Your task to perform on an android device: Open ESPN.com Image 0: 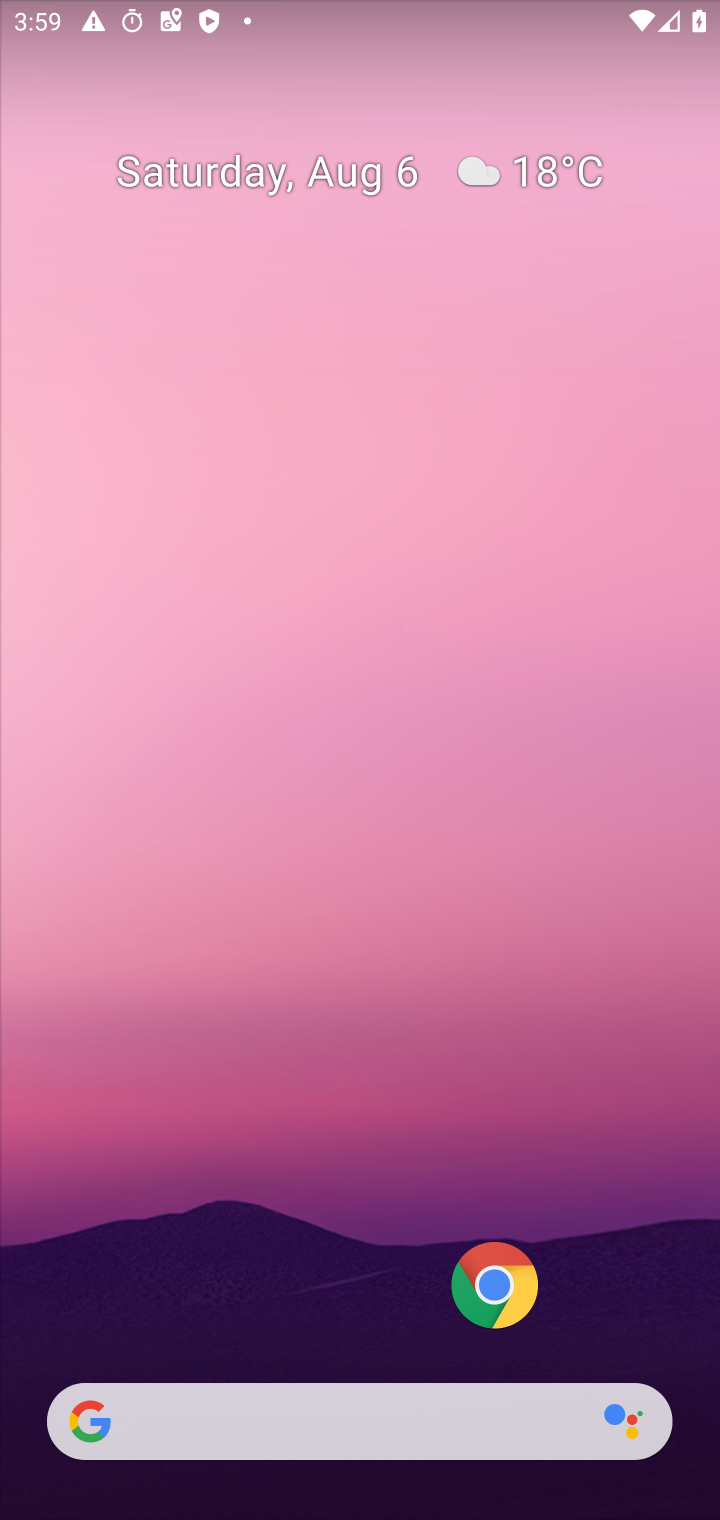
Step 0: press home button
Your task to perform on an android device: Open ESPN.com Image 1: 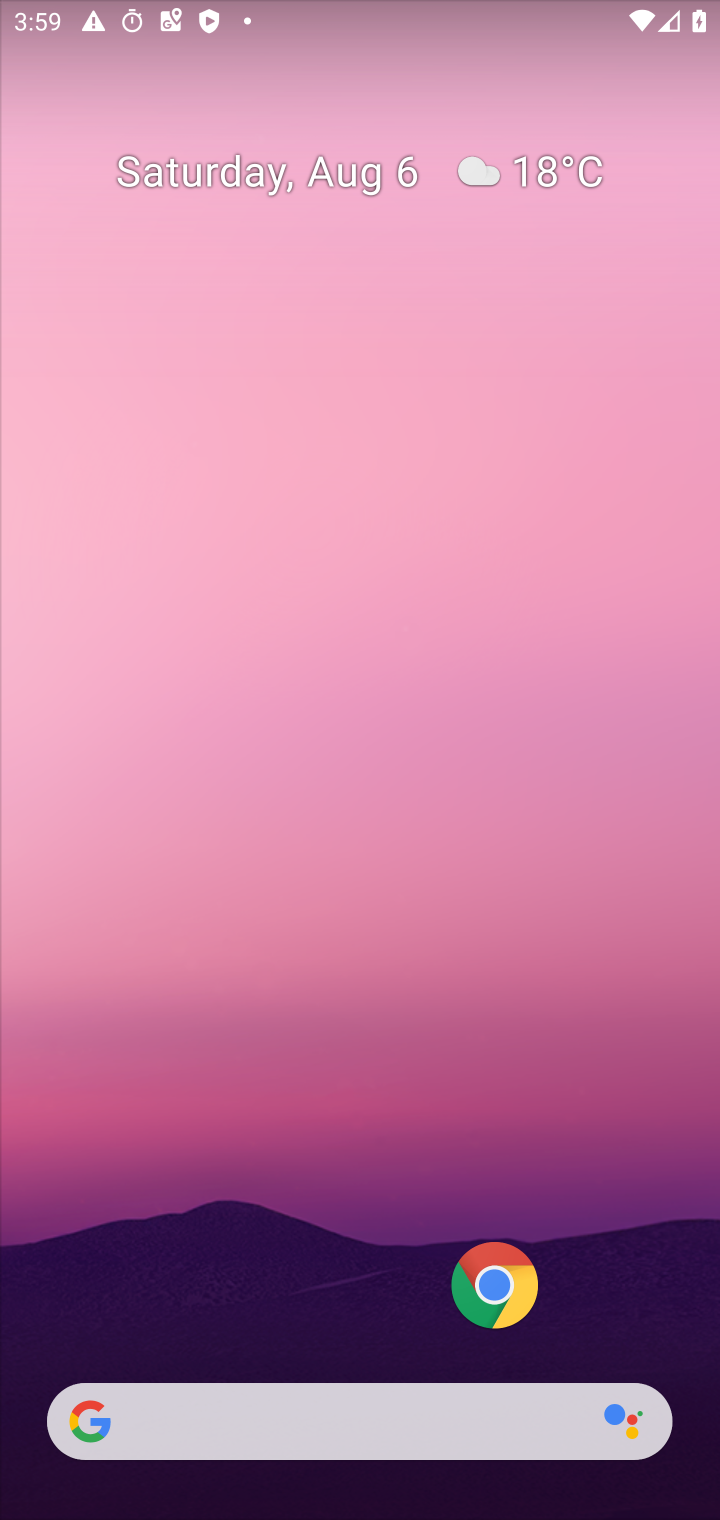
Step 1: click (495, 1273)
Your task to perform on an android device: Open ESPN.com Image 2: 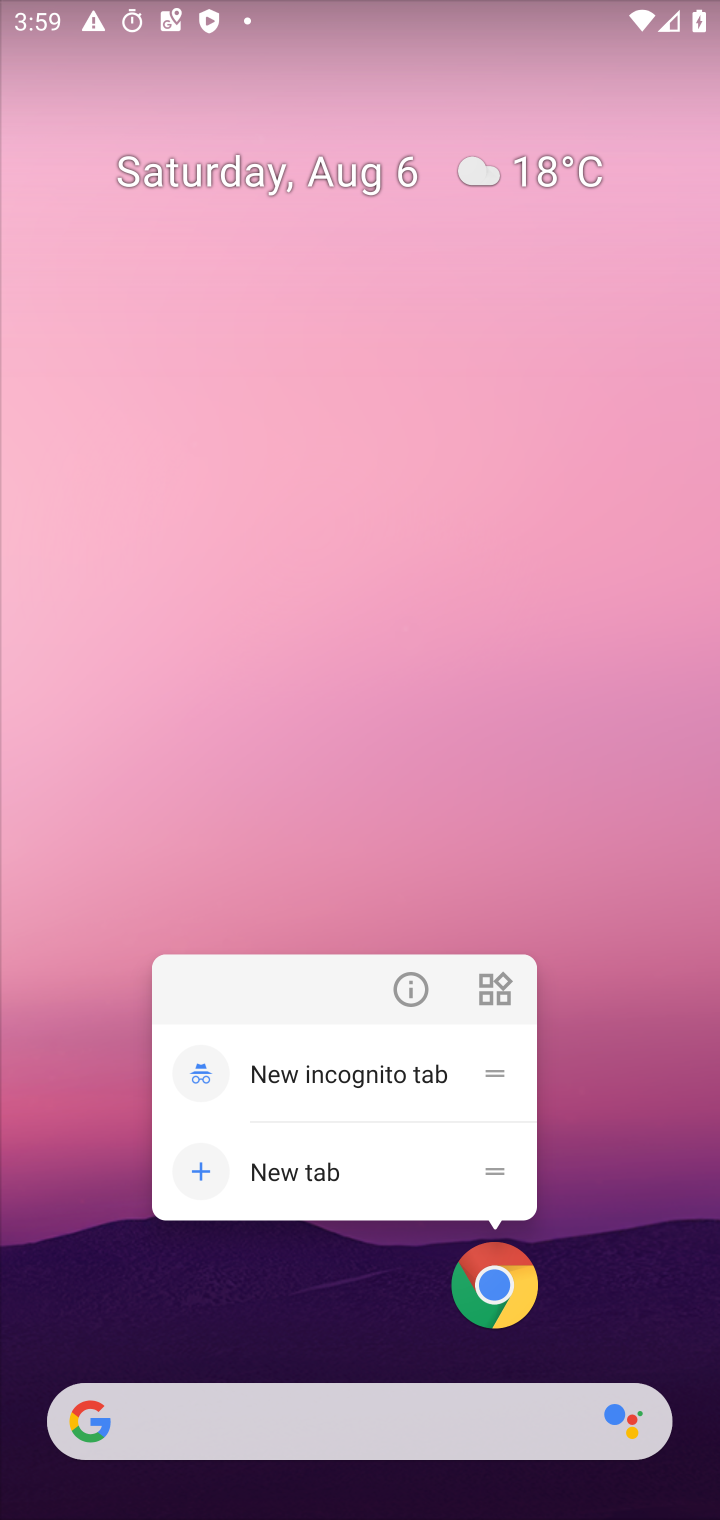
Step 2: click (488, 1268)
Your task to perform on an android device: Open ESPN.com Image 3: 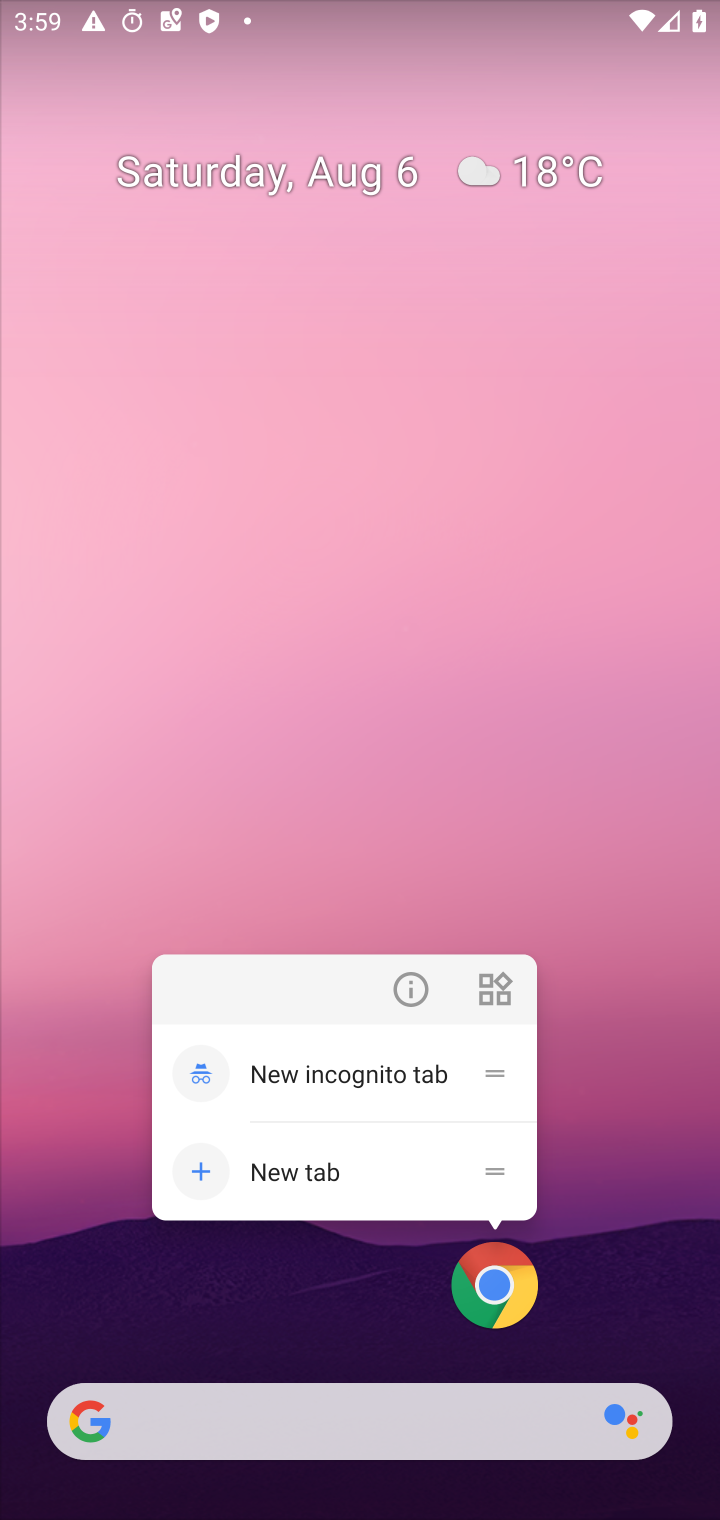
Step 3: click (488, 1268)
Your task to perform on an android device: Open ESPN.com Image 4: 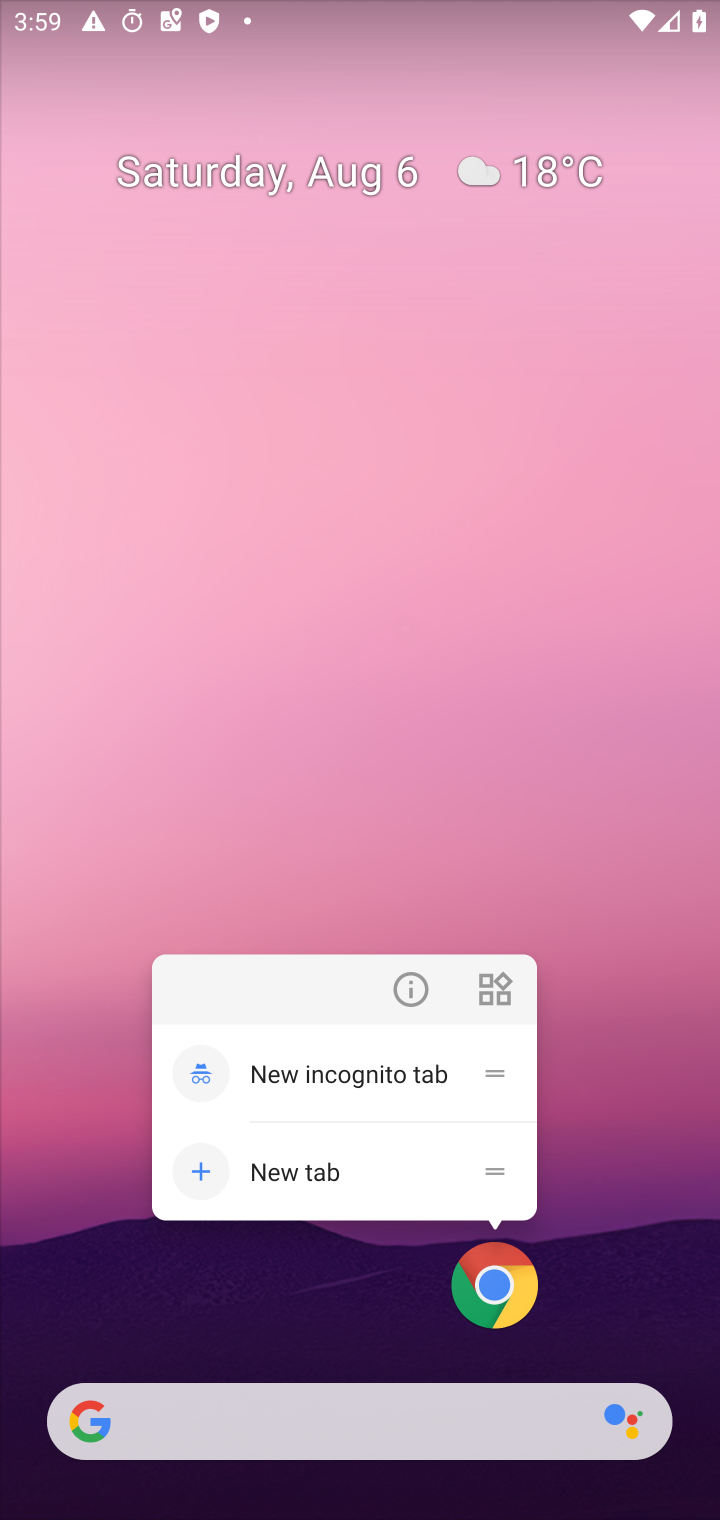
Step 4: click (556, 1278)
Your task to perform on an android device: Open ESPN.com Image 5: 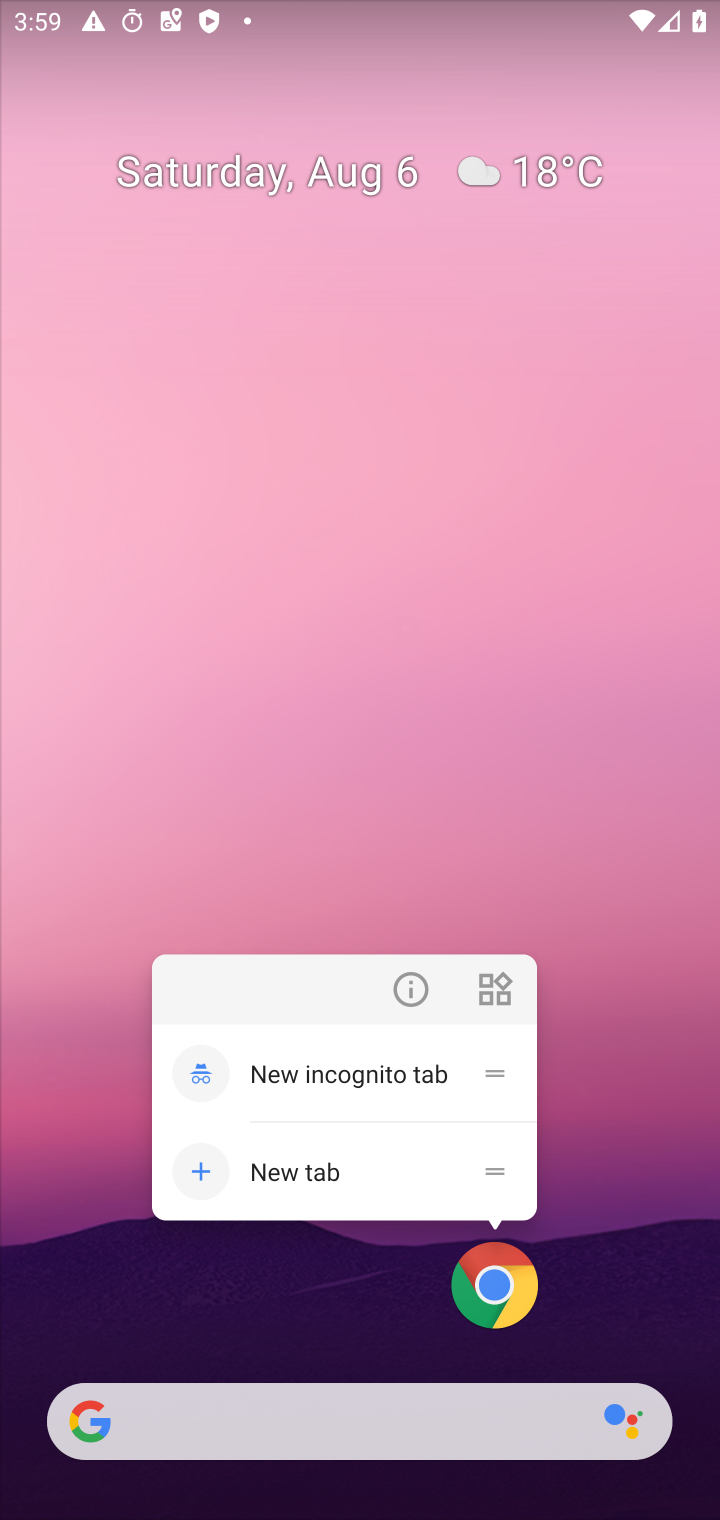
Step 5: drag from (587, 1250) to (665, 29)
Your task to perform on an android device: Open ESPN.com Image 6: 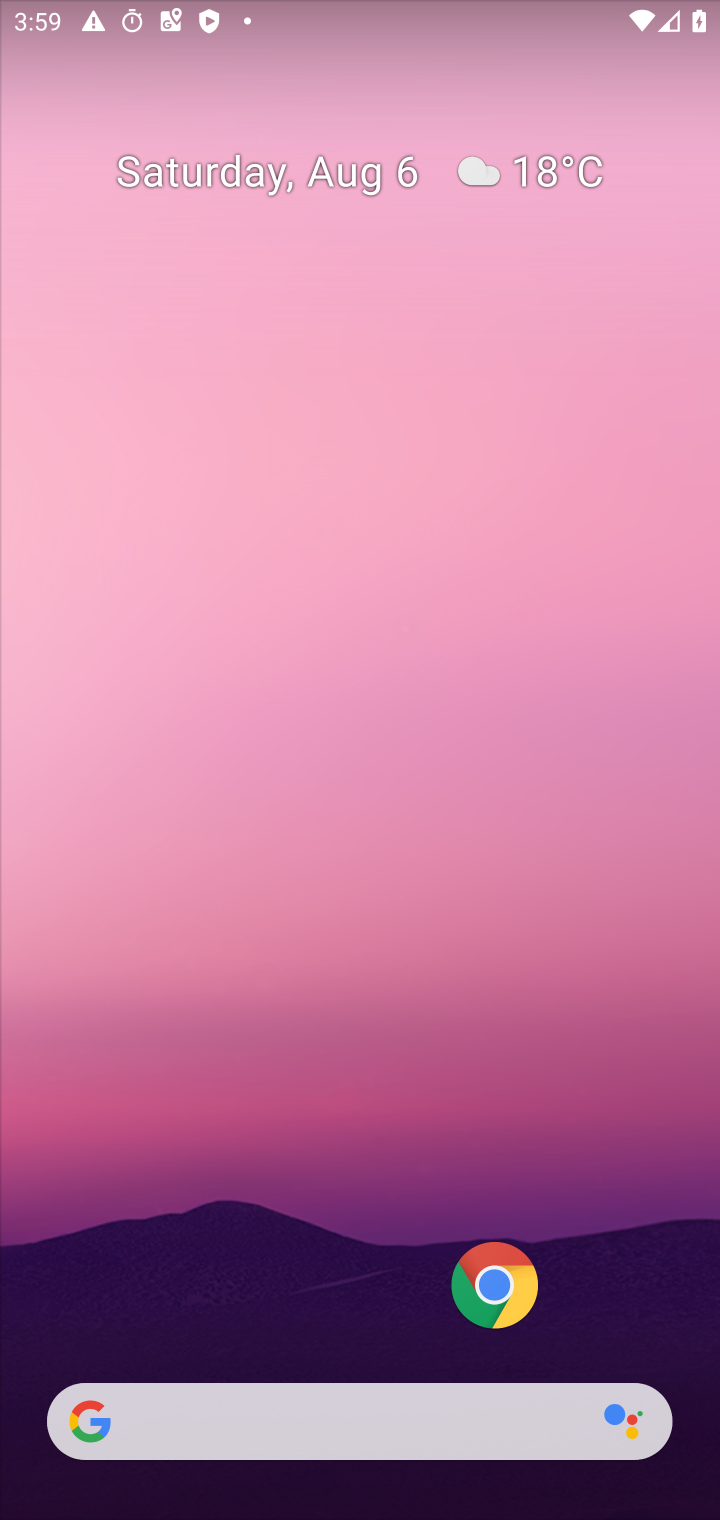
Step 6: drag from (362, 1253) to (339, 35)
Your task to perform on an android device: Open ESPN.com Image 7: 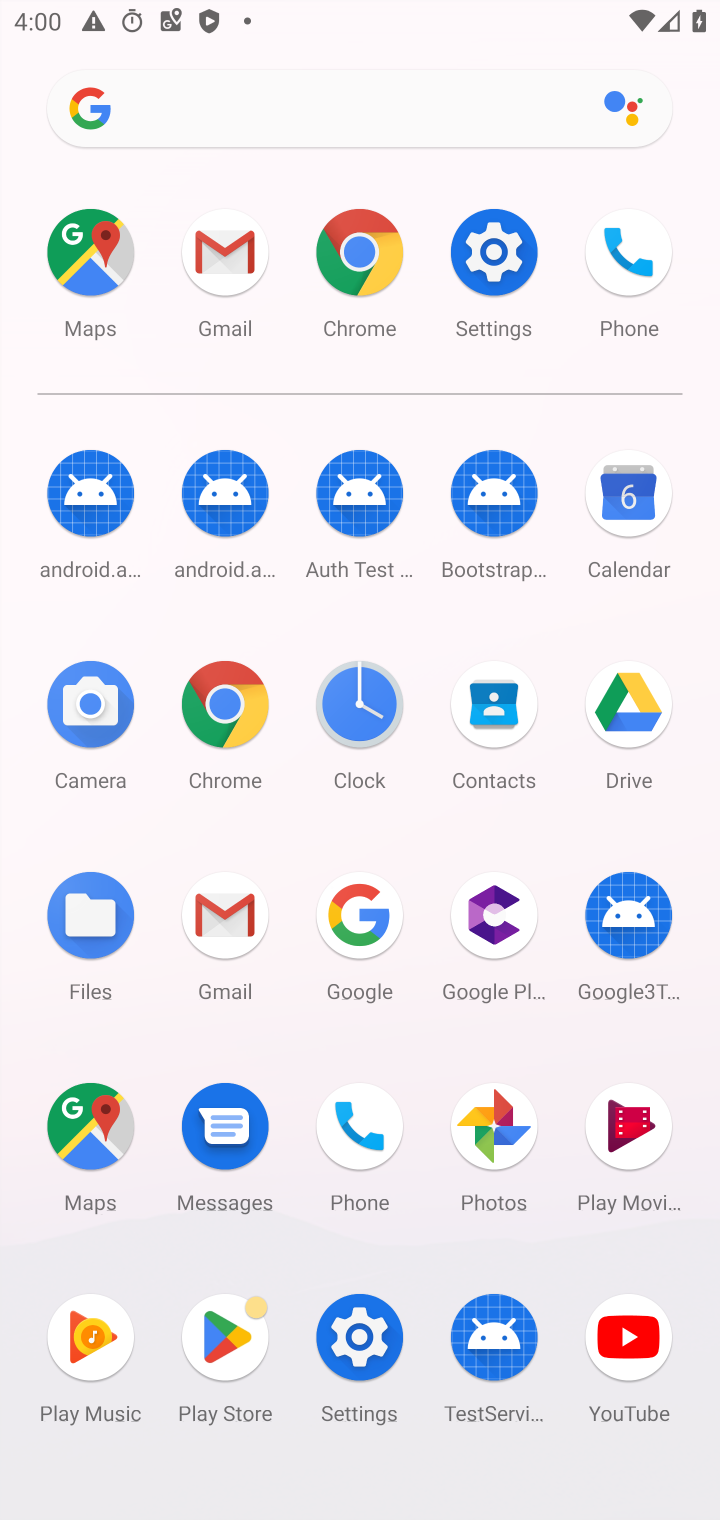
Step 7: click (362, 233)
Your task to perform on an android device: Open ESPN.com Image 8: 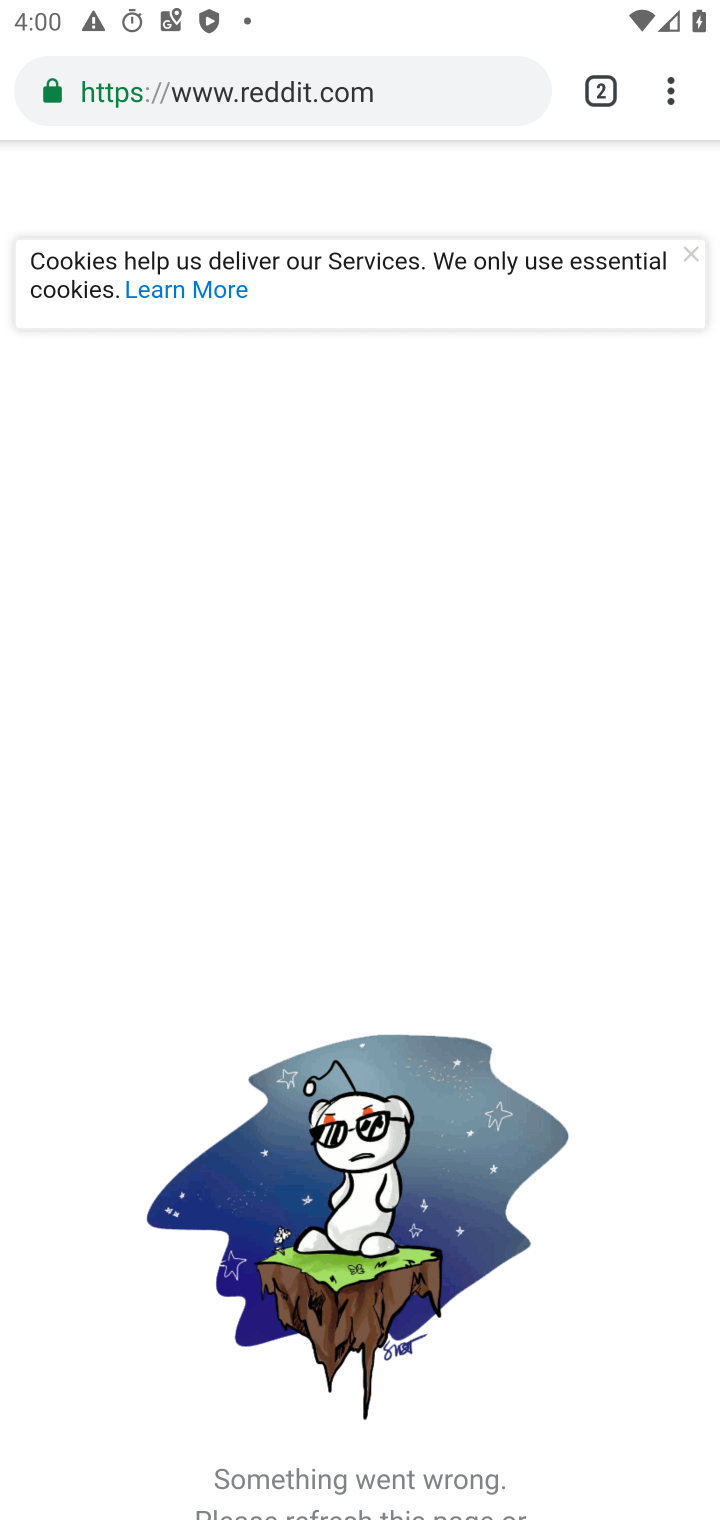
Step 8: click (595, 91)
Your task to perform on an android device: Open ESPN.com Image 9: 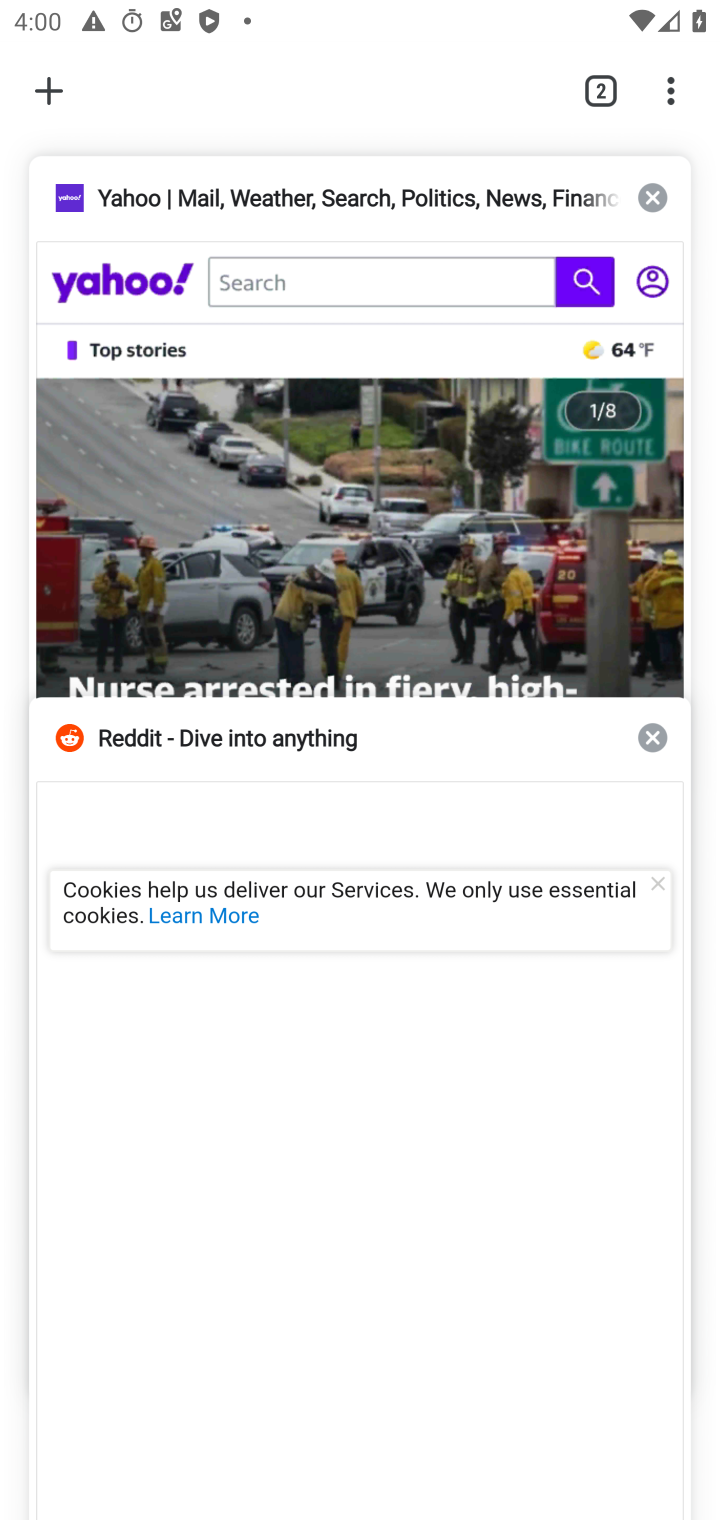
Step 9: click (48, 84)
Your task to perform on an android device: Open ESPN.com Image 10: 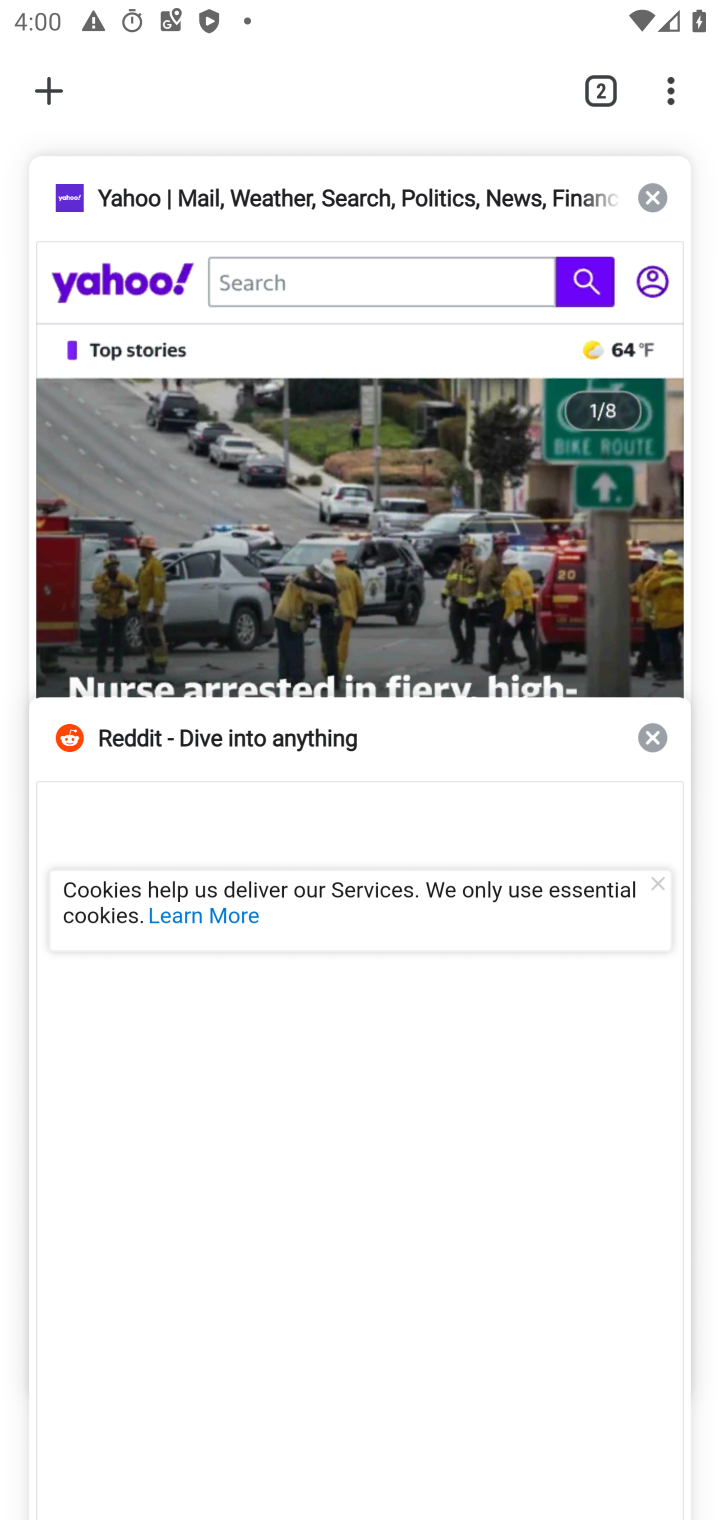
Step 10: click (41, 94)
Your task to perform on an android device: Open ESPN.com Image 11: 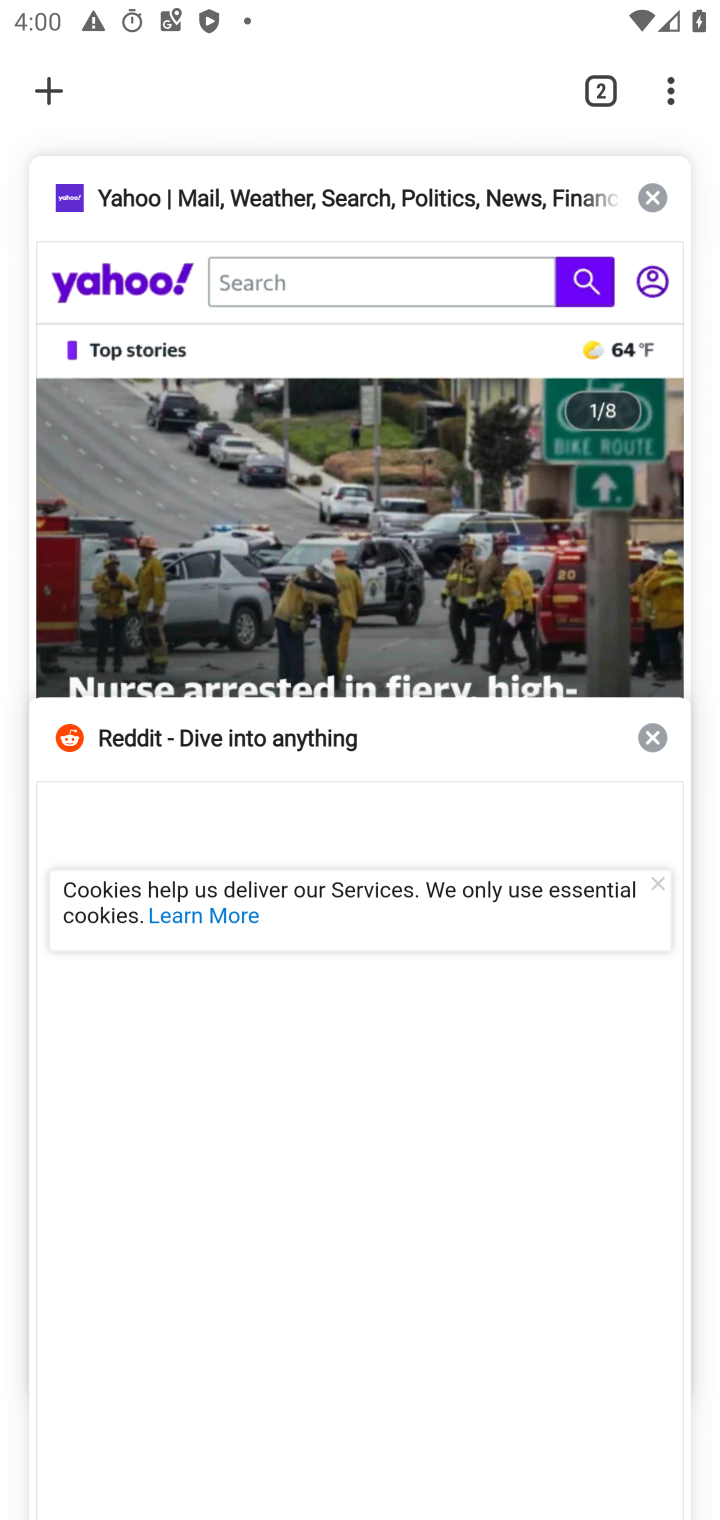
Step 11: click (60, 79)
Your task to perform on an android device: Open ESPN.com Image 12: 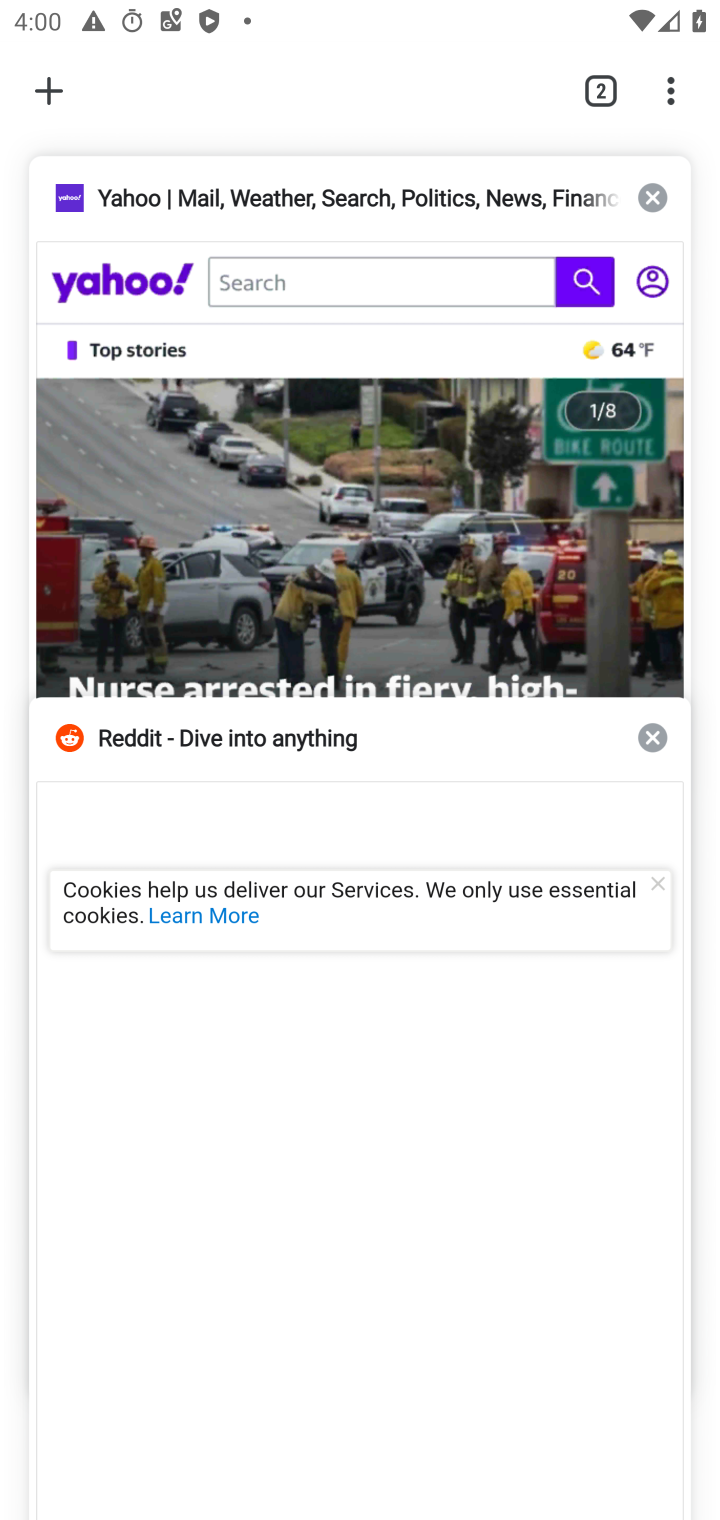
Step 12: click (49, 94)
Your task to perform on an android device: Open ESPN.com Image 13: 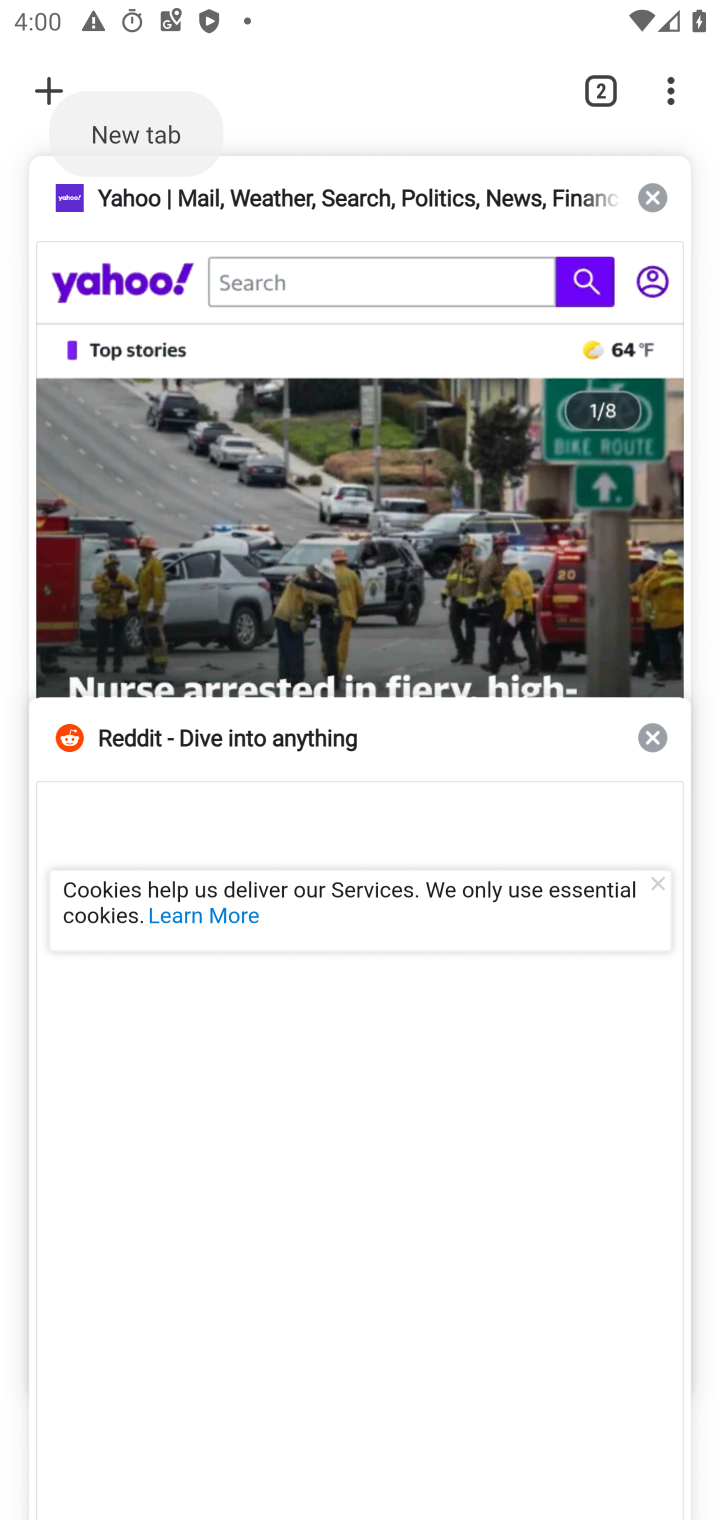
Step 13: click (51, 74)
Your task to perform on an android device: Open ESPN.com Image 14: 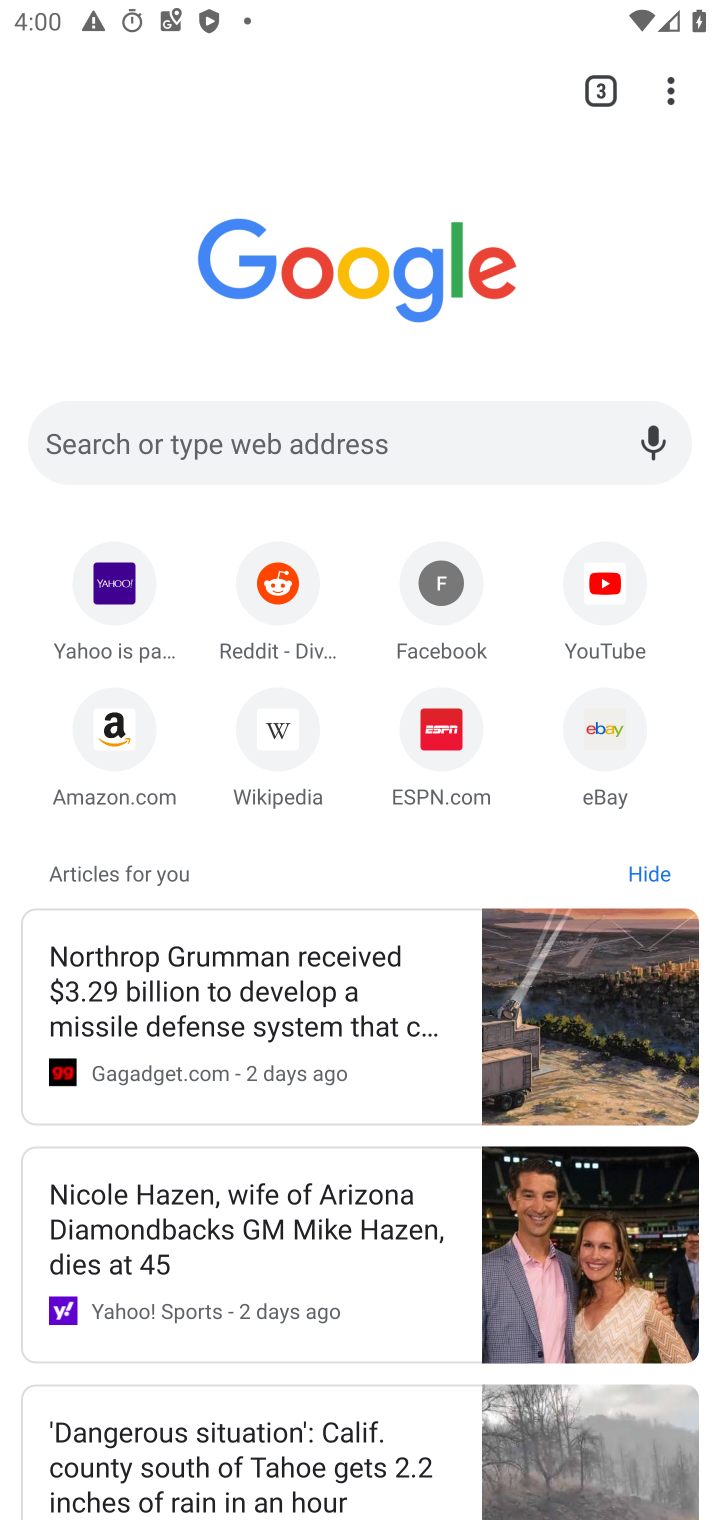
Step 14: click (445, 722)
Your task to perform on an android device: Open ESPN.com Image 15: 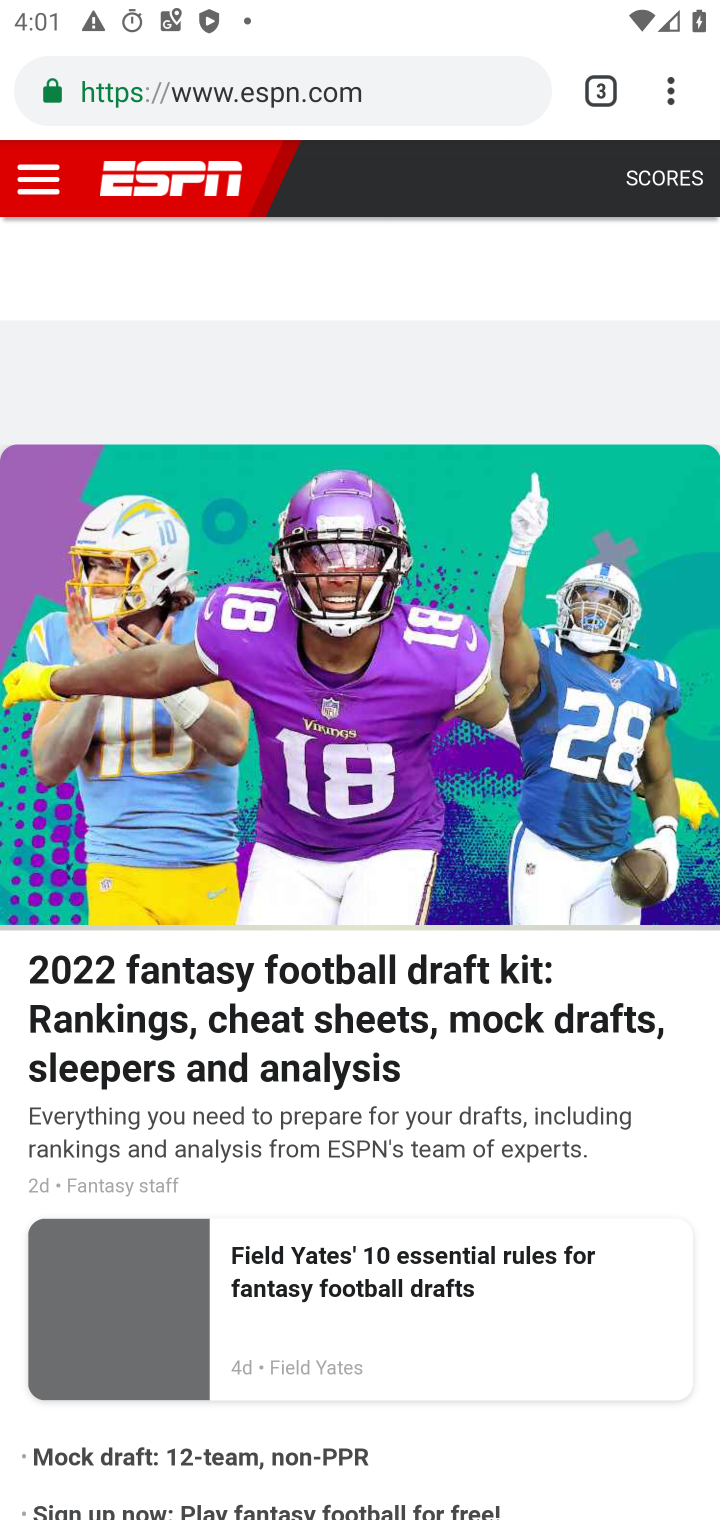
Step 15: task complete